Your task to perform on an android device: check data usage Image 0: 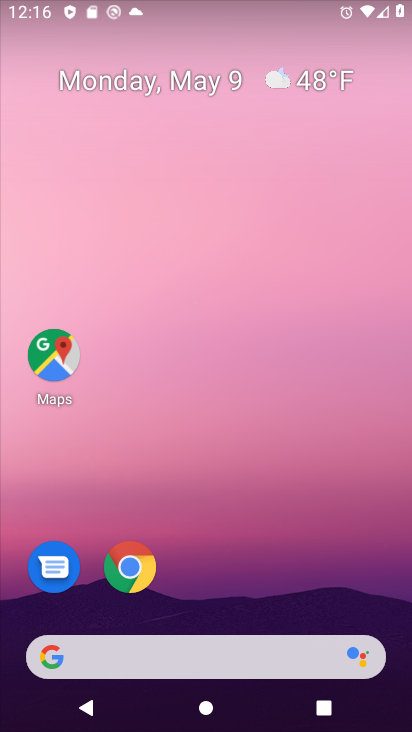
Step 0: drag from (222, 726) to (215, 159)
Your task to perform on an android device: check data usage Image 1: 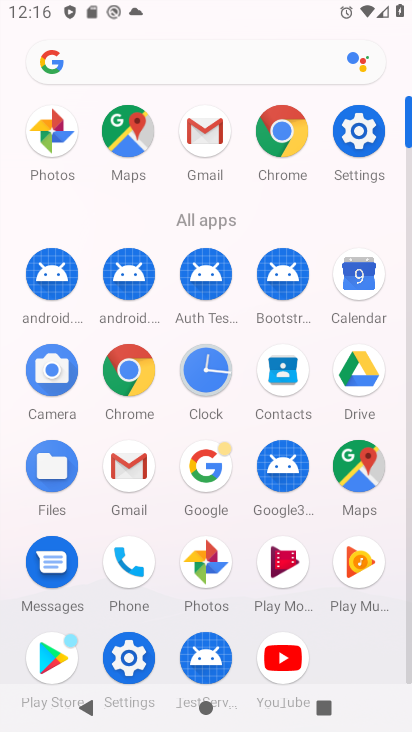
Step 1: click (354, 127)
Your task to perform on an android device: check data usage Image 2: 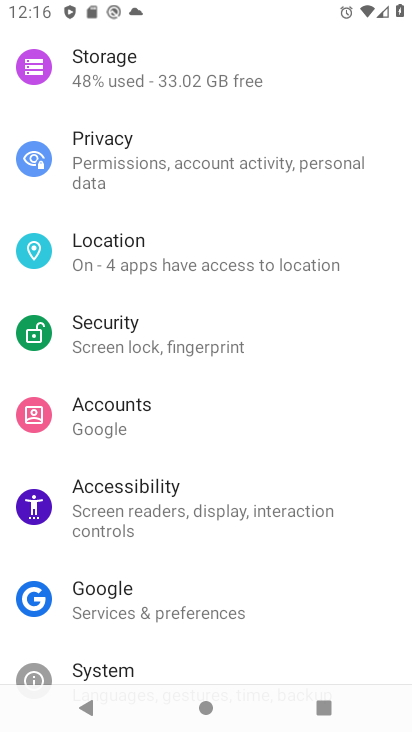
Step 2: click (145, 655)
Your task to perform on an android device: check data usage Image 3: 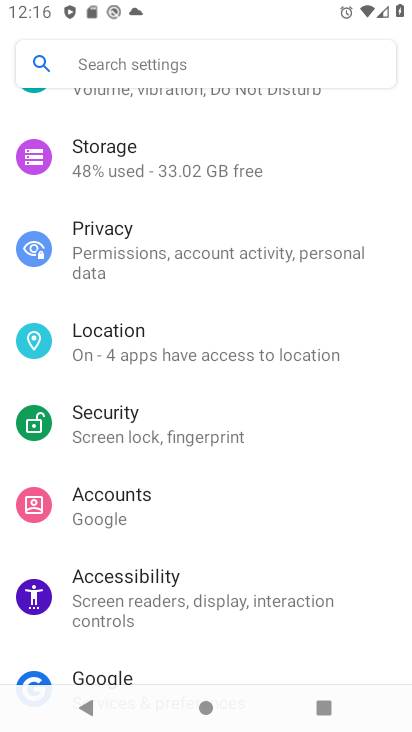
Step 3: drag from (327, 135) to (323, 574)
Your task to perform on an android device: check data usage Image 4: 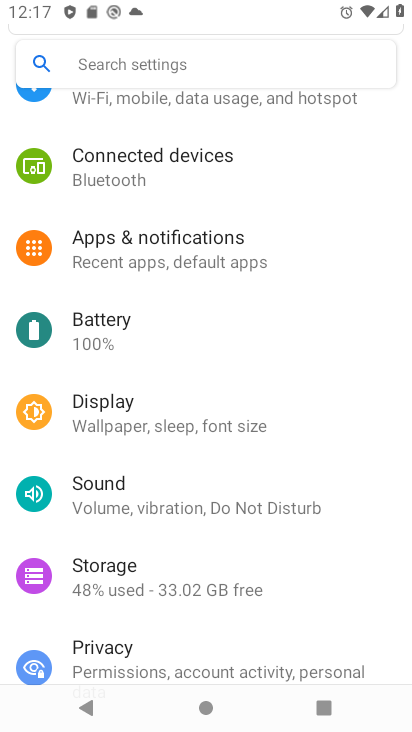
Step 4: drag from (315, 132) to (320, 523)
Your task to perform on an android device: check data usage Image 5: 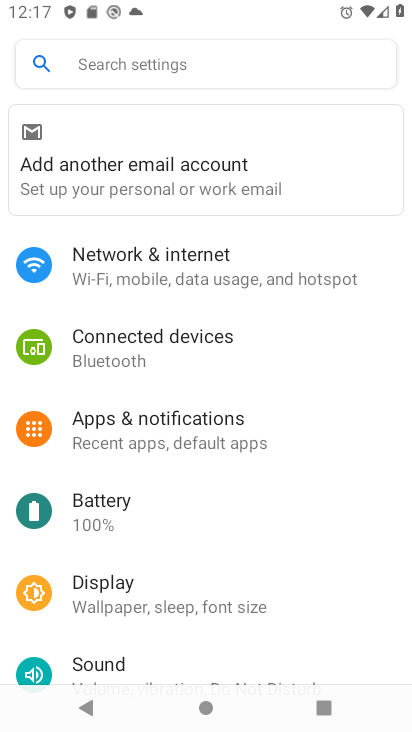
Step 5: click (98, 259)
Your task to perform on an android device: check data usage Image 6: 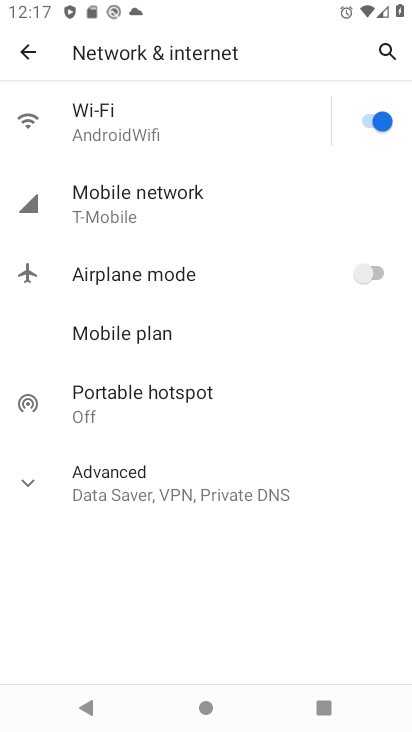
Step 6: click (129, 187)
Your task to perform on an android device: check data usage Image 7: 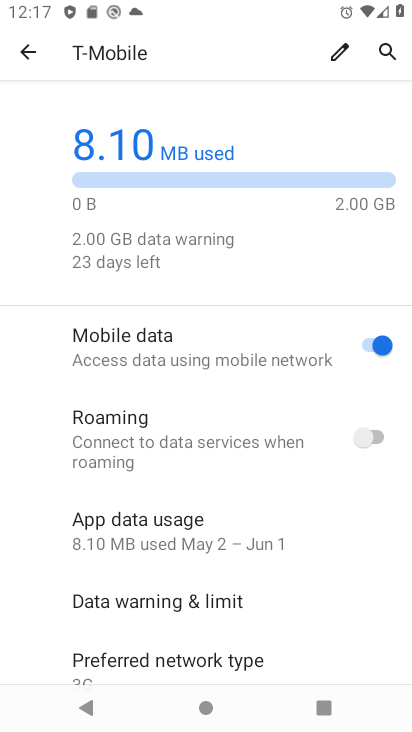
Step 7: task complete